Your task to perform on an android device: change your default location settings in chrome Image 0: 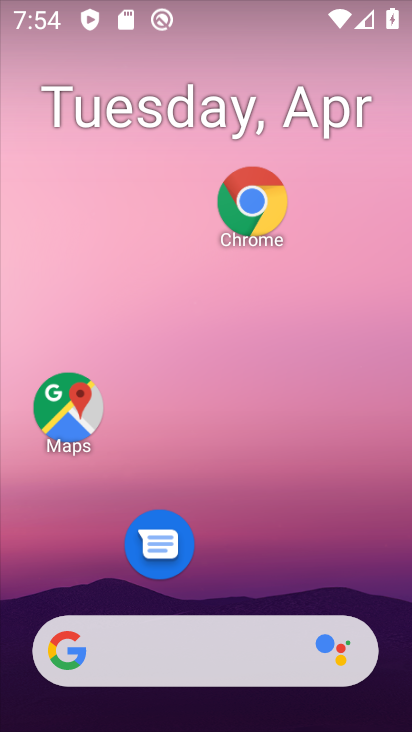
Step 0: click (259, 196)
Your task to perform on an android device: change your default location settings in chrome Image 1: 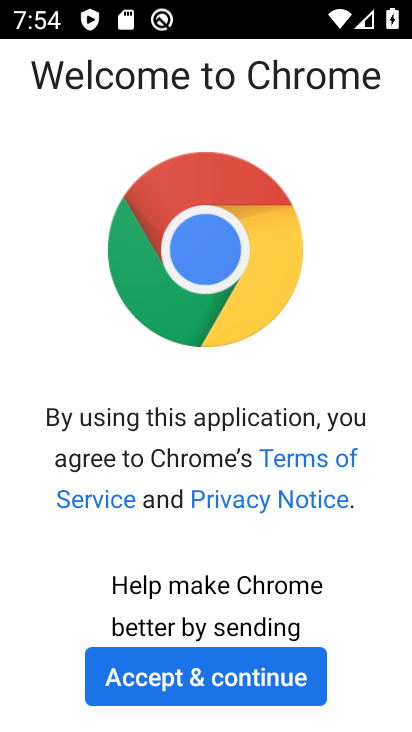
Step 1: click (168, 693)
Your task to perform on an android device: change your default location settings in chrome Image 2: 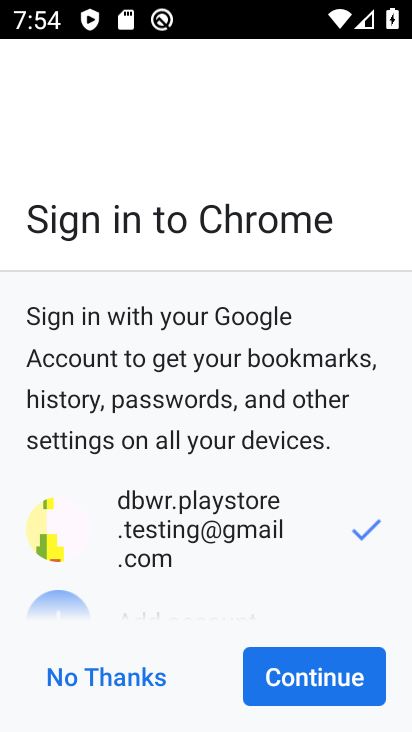
Step 2: click (307, 665)
Your task to perform on an android device: change your default location settings in chrome Image 3: 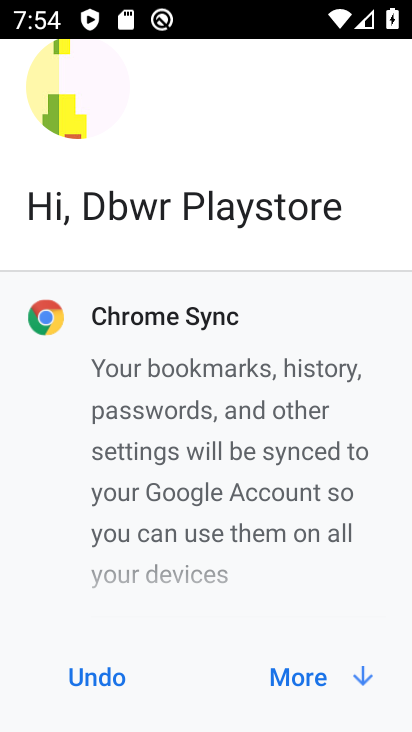
Step 3: click (307, 665)
Your task to perform on an android device: change your default location settings in chrome Image 4: 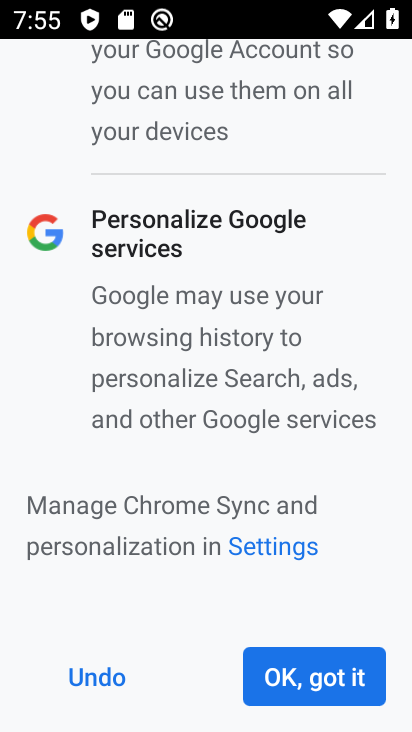
Step 4: click (333, 679)
Your task to perform on an android device: change your default location settings in chrome Image 5: 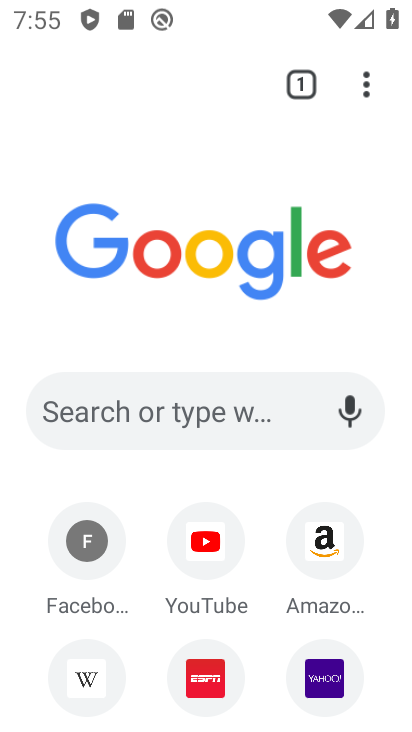
Step 5: click (372, 82)
Your task to perform on an android device: change your default location settings in chrome Image 6: 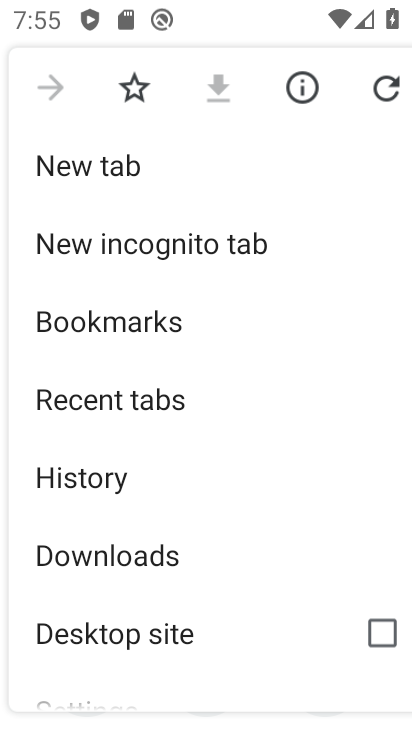
Step 6: drag from (194, 571) to (268, 109)
Your task to perform on an android device: change your default location settings in chrome Image 7: 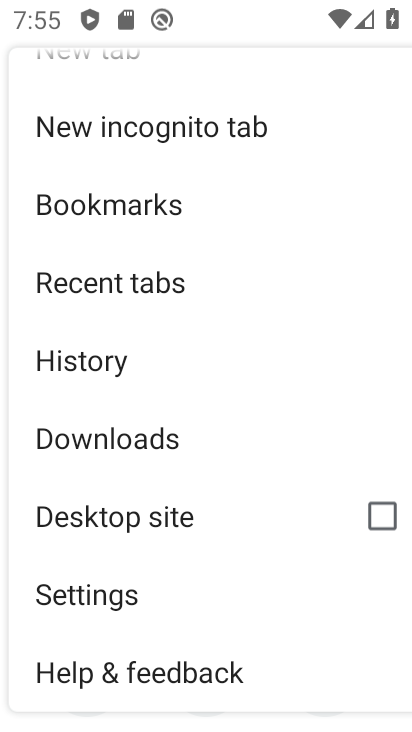
Step 7: click (104, 588)
Your task to perform on an android device: change your default location settings in chrome Image 8: 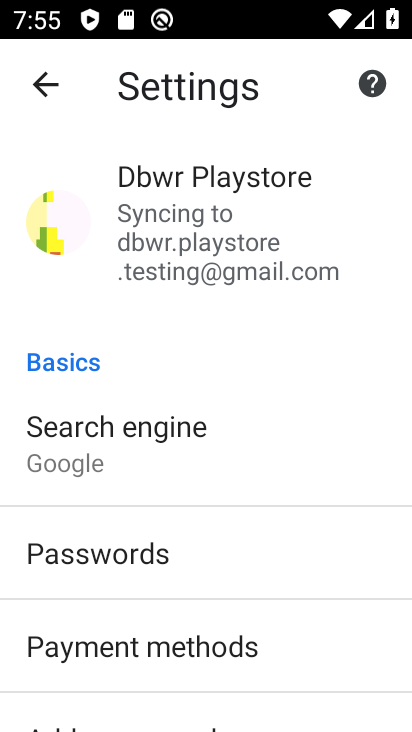
Step 8: drag from (167, 618) to (248, 114)
Your task to perform on an android device: change your default location settings in chrome Image 9: 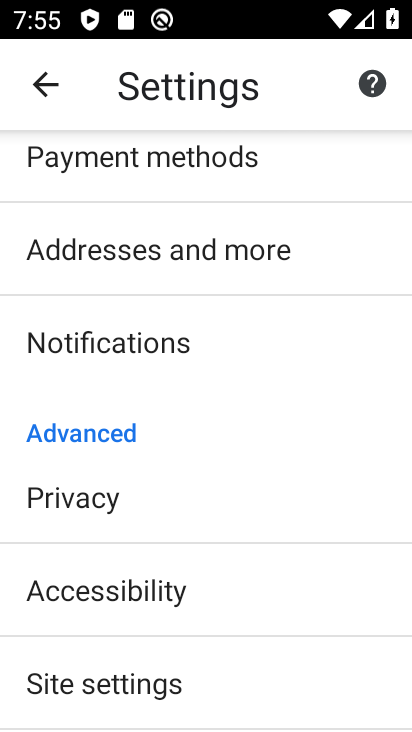
Step 9: click (143, 681)
Your task to perform on an android device: change your default location settings in chrome Image 10: 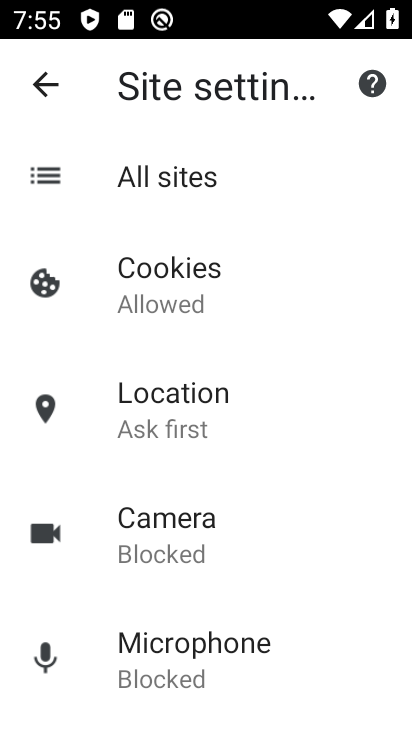
Step 10: click (160, 400)
Your task to perform on an android device: change your default location settings in chrome Image 11: 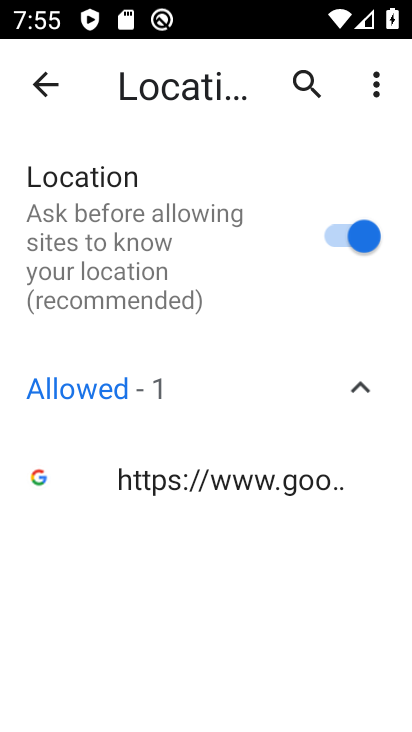
Step 11: click (242, 491)
Your task to perform on an android device: change your default location settings in chrome Image 12: 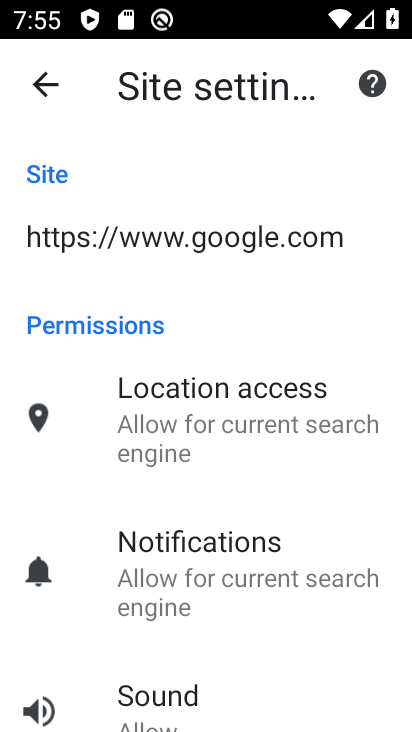
Step 12: click (221, 428)
Your task to perform on an android device: change your default location settings in chrome Image 13: 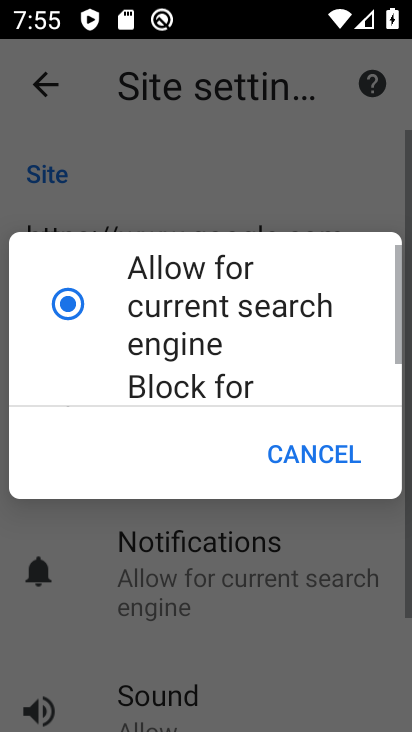
Step 13: click (210, 380)
Your task to perform on an android device: change your default location settings in chrome Image 14: 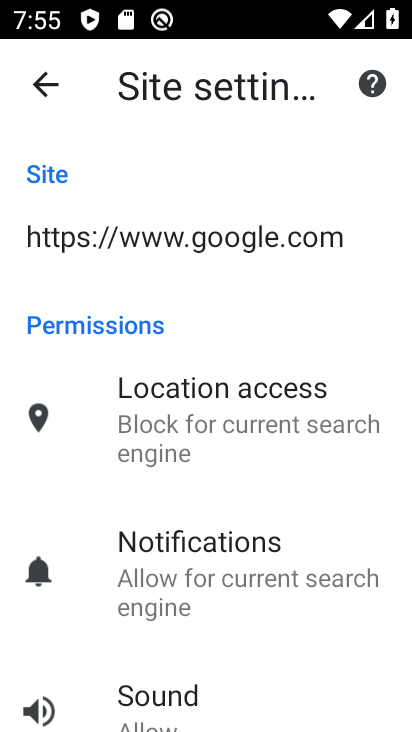
Step 14: task complete